Your task to perform on an android device: open a new tab in the chrome app Image 0: 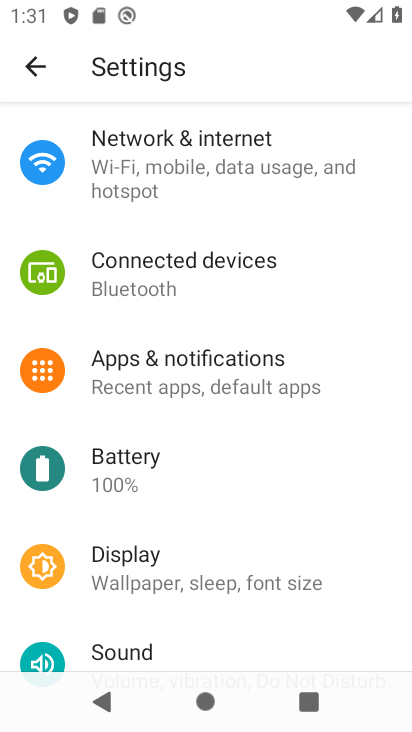
Step 0: press home button
Your task to perform on an android device: open a new tab in the chrome app Image 1: 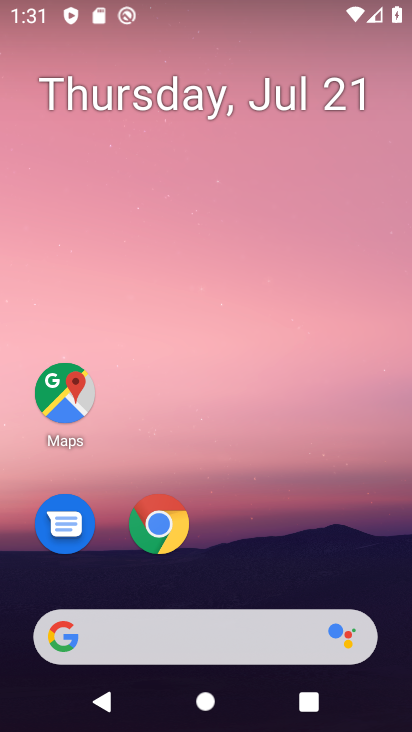
Step 1: click (174, 529)
Your task to perform on an android device: open a new tab in the chrome app Image 2: 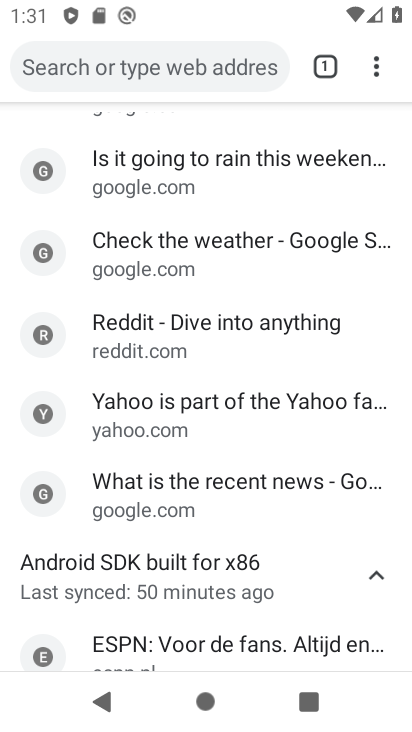
Step 2: click (373, 66)
Your task to perform on an android device: open a new tab in the chrome app Image 3: 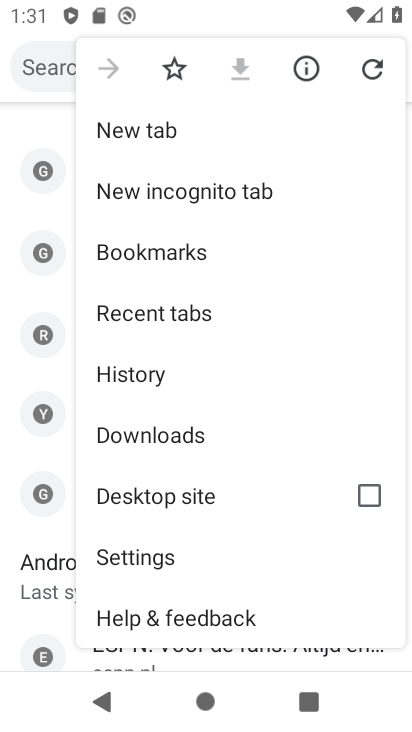
Step 3: click (267, 124)
Your task to perform on an android device: open a new tab in the chrome app Image 4: 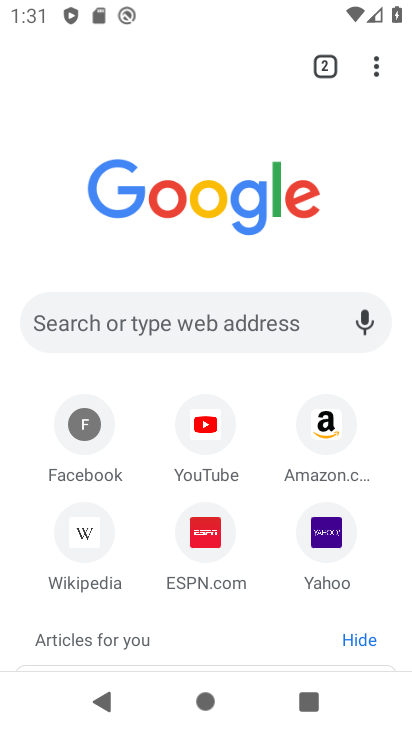
Step 4: task complete